Your task to perform on an android device: Open network settings Image 0: 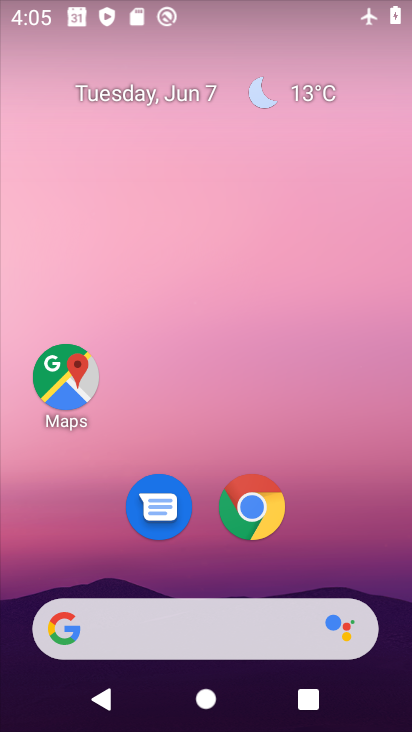
Step 0: drag from (349, 487) to (270, 14)
Your task to perform on an android device: Open network settings Image 1: 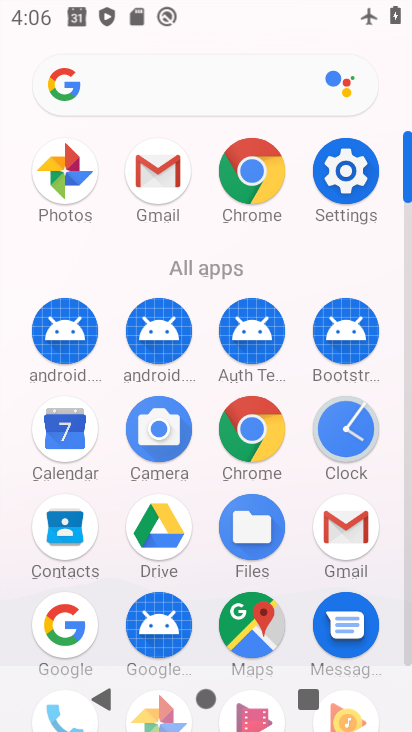
Step 1: drag from (19, 528) to (1, 241)
Your task to perform on an android device: Open network settings Image 2: 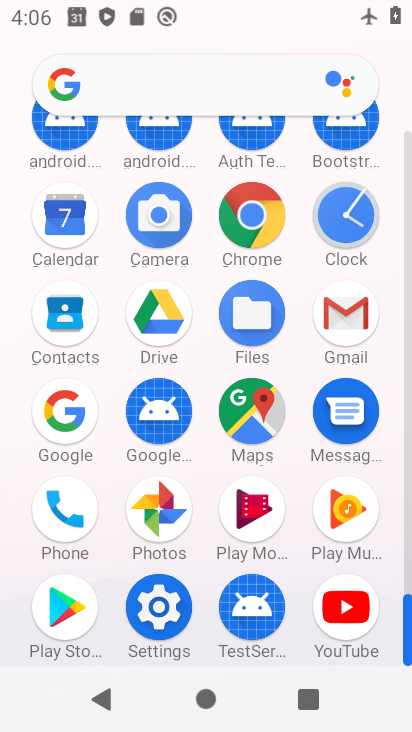
Step 2: click (160, 605)
Your task to perform on an android device: Open network settings Image 3: 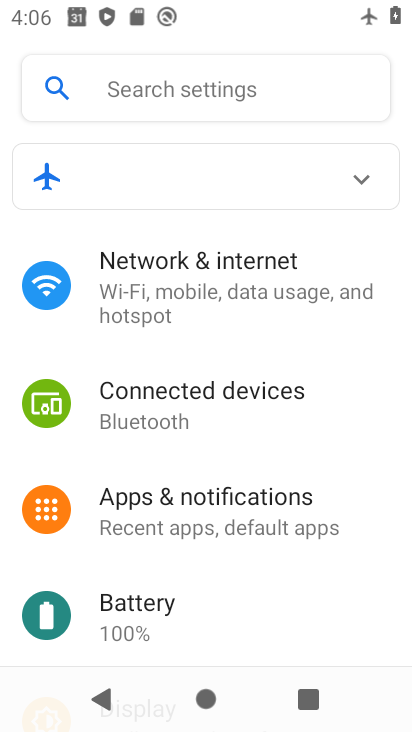
Step 3: click (243, 279)
Your task to perform on an android device: Open network settings Image 4: 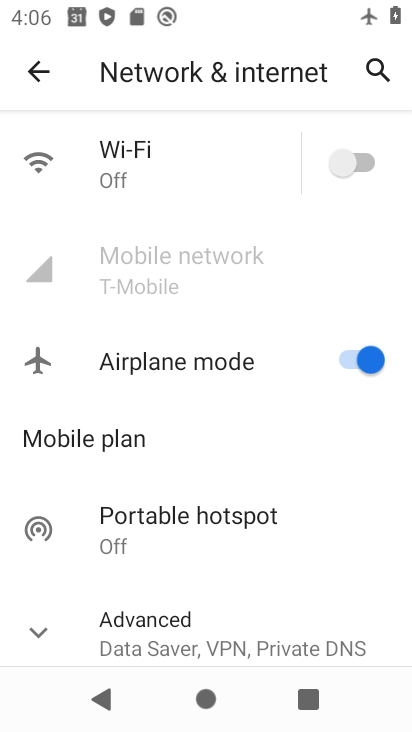
Step 4: click (48, 635)
Your task to perform on an android device: Open network settings Image 5: 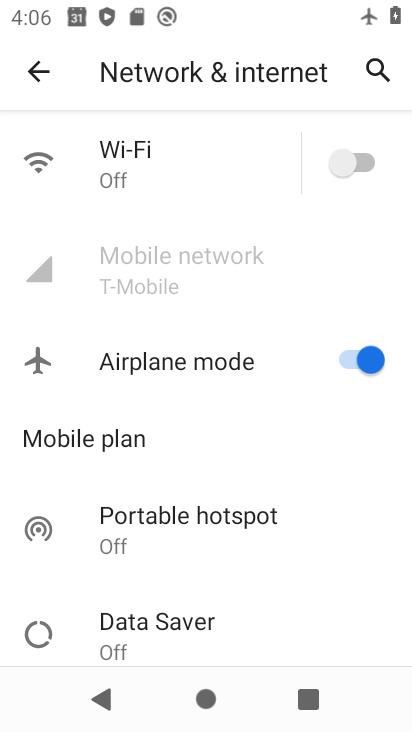
Step 5: task complete